Your task to perform on an android device: Open display settings Image 0: 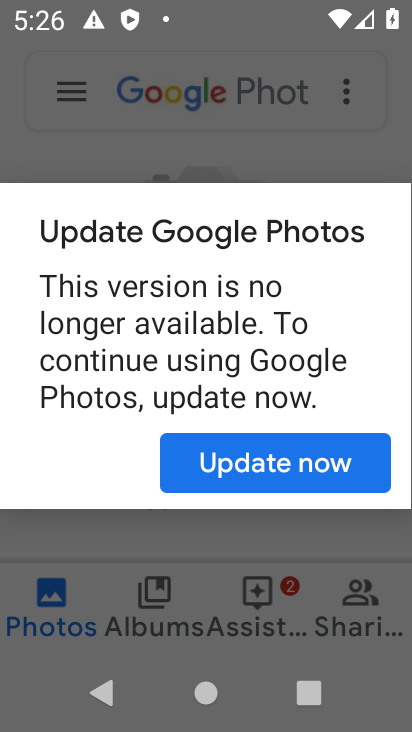
Step 0: press home button
Your task to perform on an android device: Open display settings Image 1: 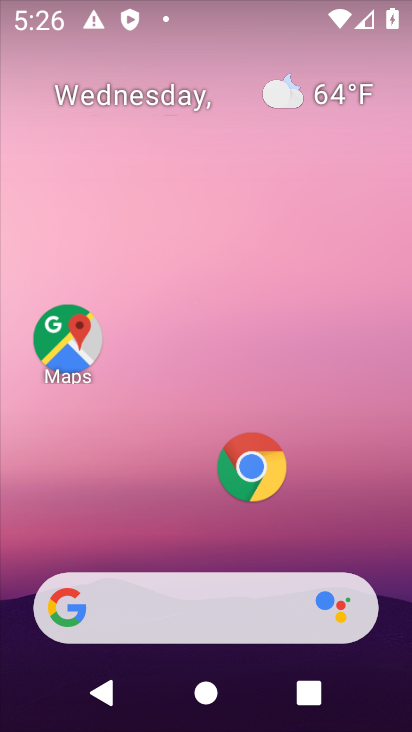
Step 1: drag from (161, 529) to (402, 71)
Your task to perform on an android device: Open display settings Image 2: 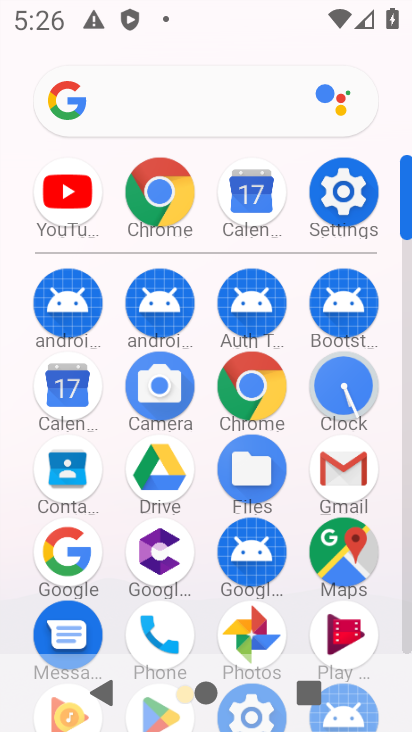
Step 2: click (338, 221)
Your task to perform on an android device: Open display settings Image 3: 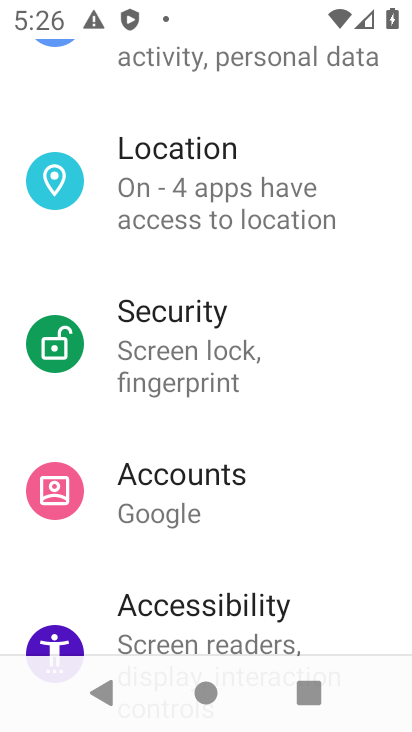
Step 3: drag from (272, 258) to (289, 422)
Your task to perform on an android device: Open display settings Image 4: 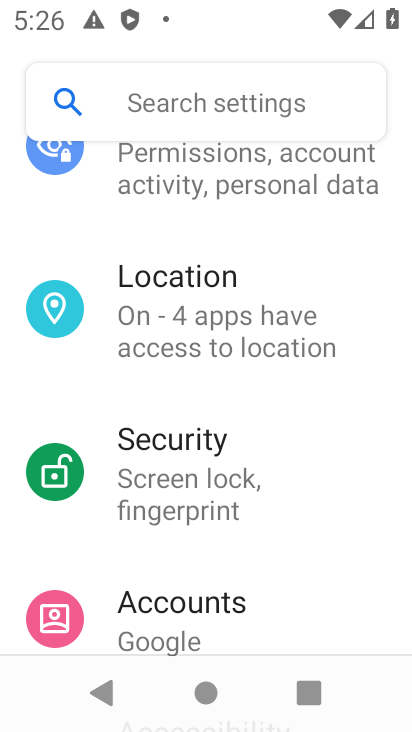
Step 4: drag from (271, 305) to (297, 543)
Your task to perform on an android device: Open display settings Image 5: 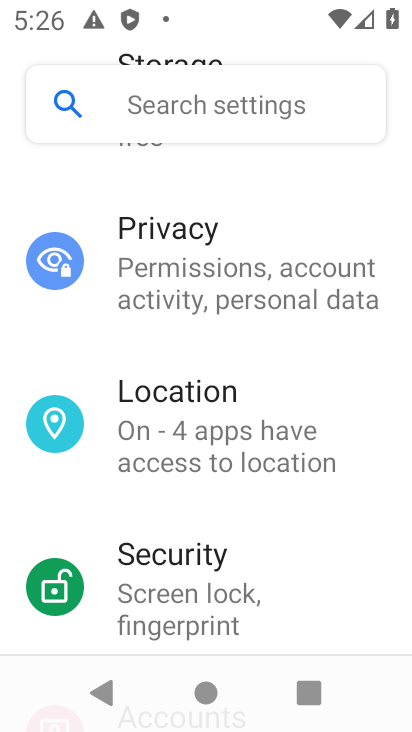
Step 5: drag from (279, 236) to (316, 528)
Your task to perform on an android device: Open display settings Image 6: 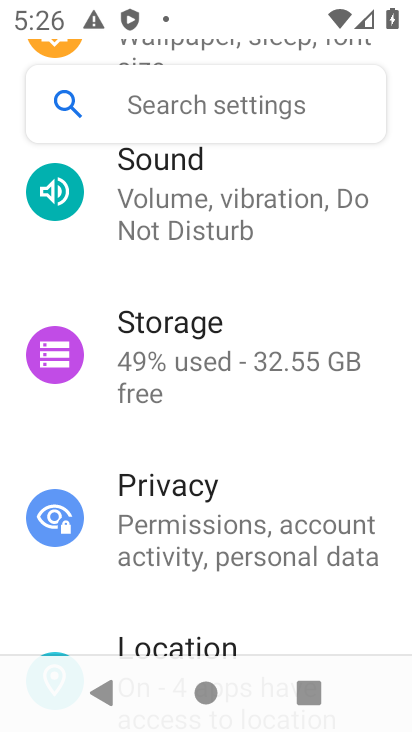
Step 6: drag from (278, 264) to (292, 591)
Your task to perform on an android device: Open display settings Image 7: 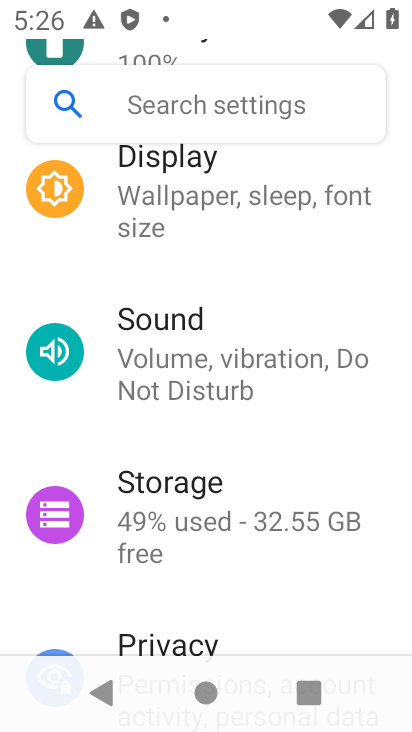
Step 7: click (251, 181)
Your task to perform on an android device: Open display settings Image 8: 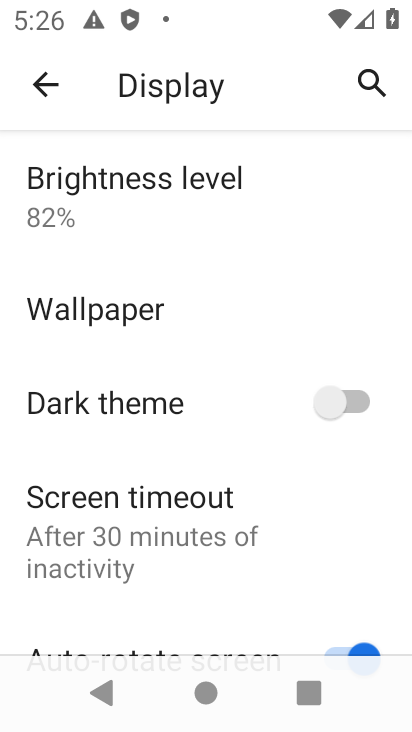
Step 8: task complete